Your task to perform on an android device: Is it going to rain this weekend? Image 0: 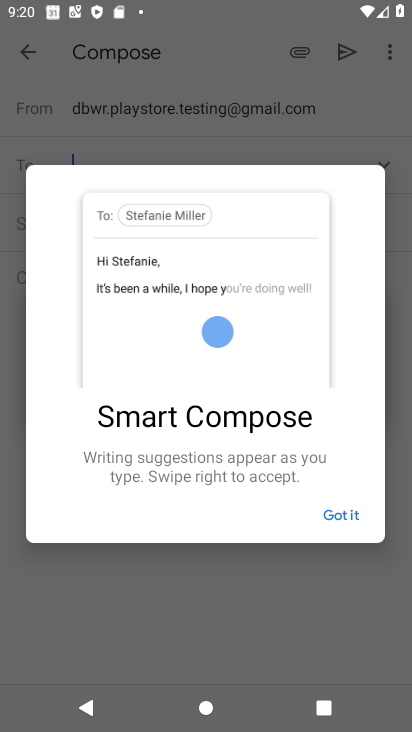
Step 0: press home button
Your task to perform on an android device: Is it going to rain this weekend? Image 1: 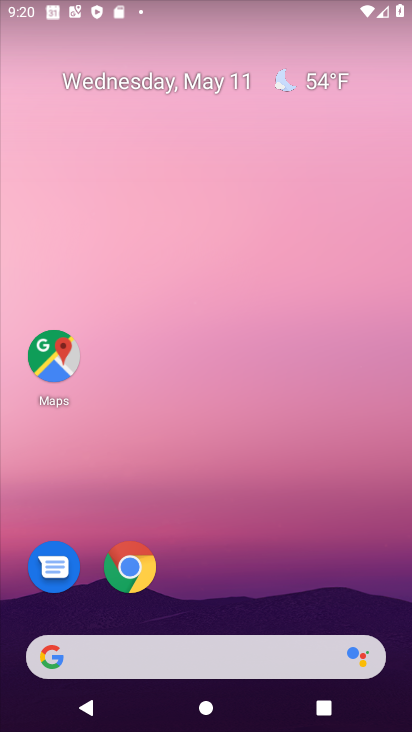
Step 1: click (324, 85)
Your task to perform on an android device: Is it going to rain this weekend? Image 2: 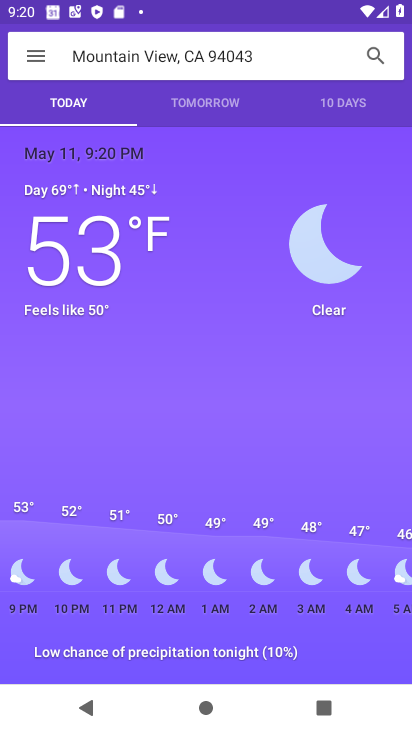
Step 2: drag from (154, 480) to (159, 549)
Your task to perform on an android device: Is it going to rain this weekend? Image 3: 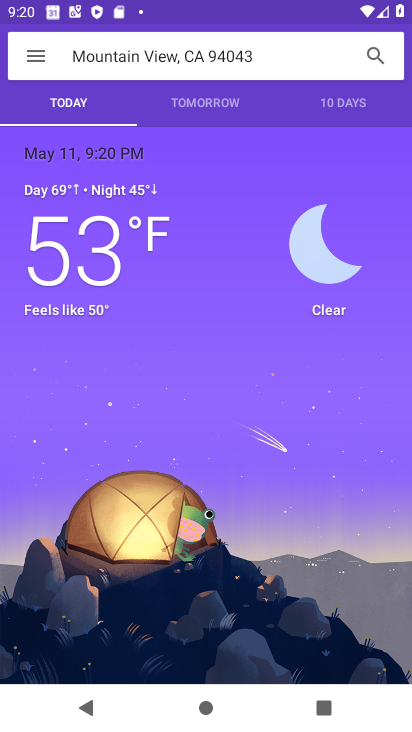
Step 3: click (342, 100)
Your task to perform on an android device: Is it going to rain this weekend? Image 4: 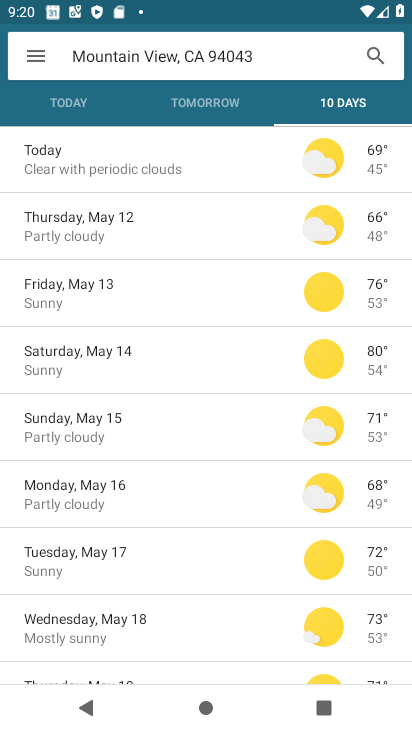
Step 4: task complete